Your task to perform on an android device: Open Google Maps and go to "Timeline" Image 0: 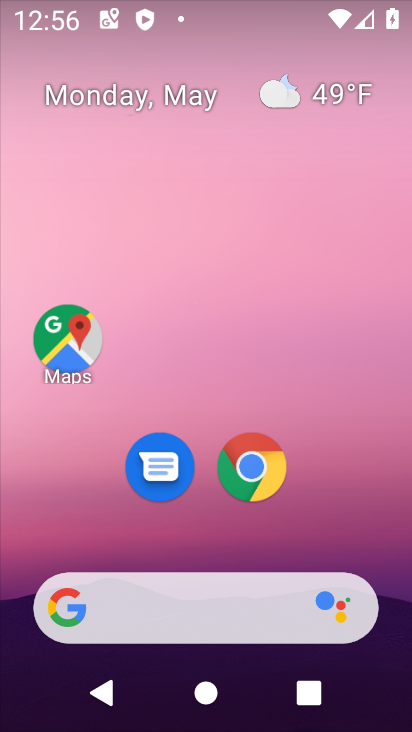
Step 0: drag from (370, 525) to (317, 146)
Your task to perform on an android device: Open Google Maps and go to "Timeline" Image 1: 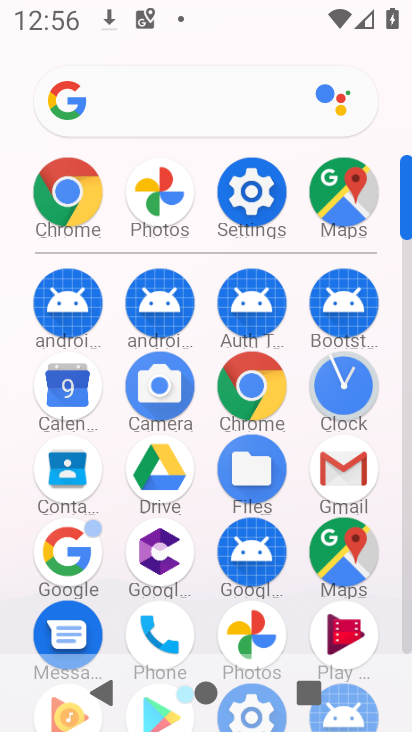
Step 1: click (371, 565)
Your task to perform on an android device: Open Google Maps and go to "Timeline" Image 2: 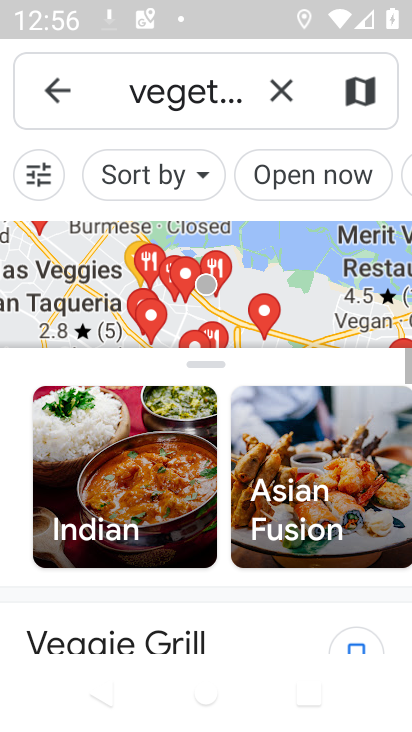
Step 2: click (37, 102)
Your task to perform on an android device: Open Google Maps and go to "Timeline" Image 3: 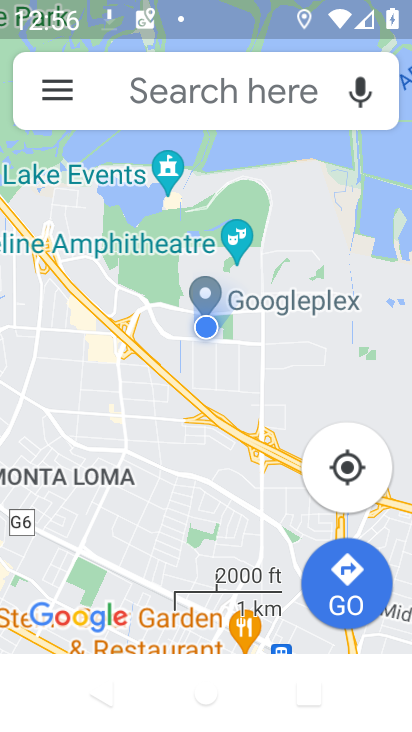
Step 3: click (57, 96)
Your task to perform on an android device: Open Google Maps and go to "Timeline" Image 4: 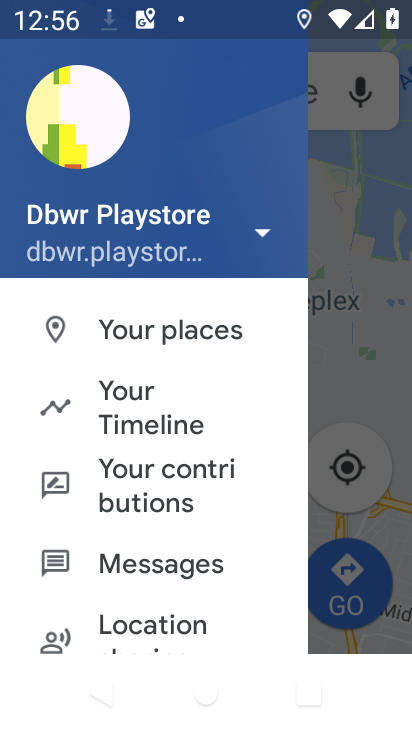
Step 4: click (142, 416)
Your task to perform on an android device: Open Google Maps and go to "Timeline" Image 5: 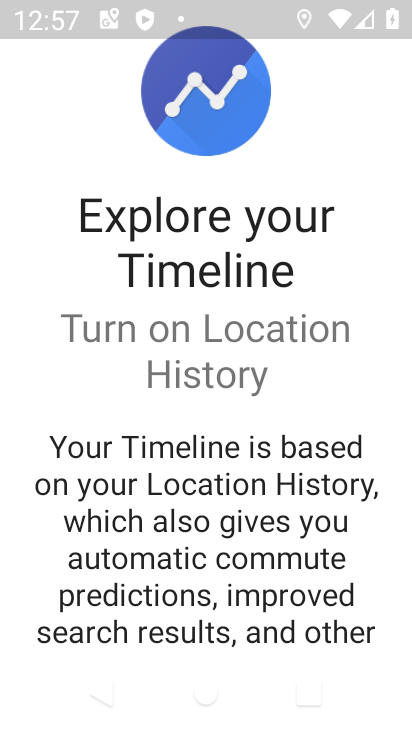
Step 5: task complete